Your task to perform on an android device: open app "Messages" Image 0: 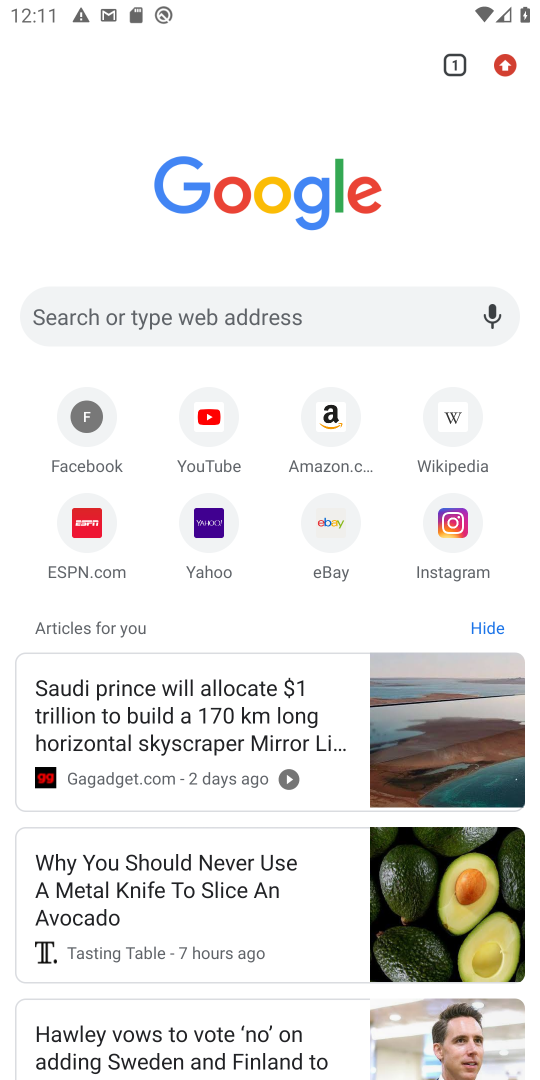
Step 0: press home button
Your task to perform on an android device: open app "Messages" Image 1: 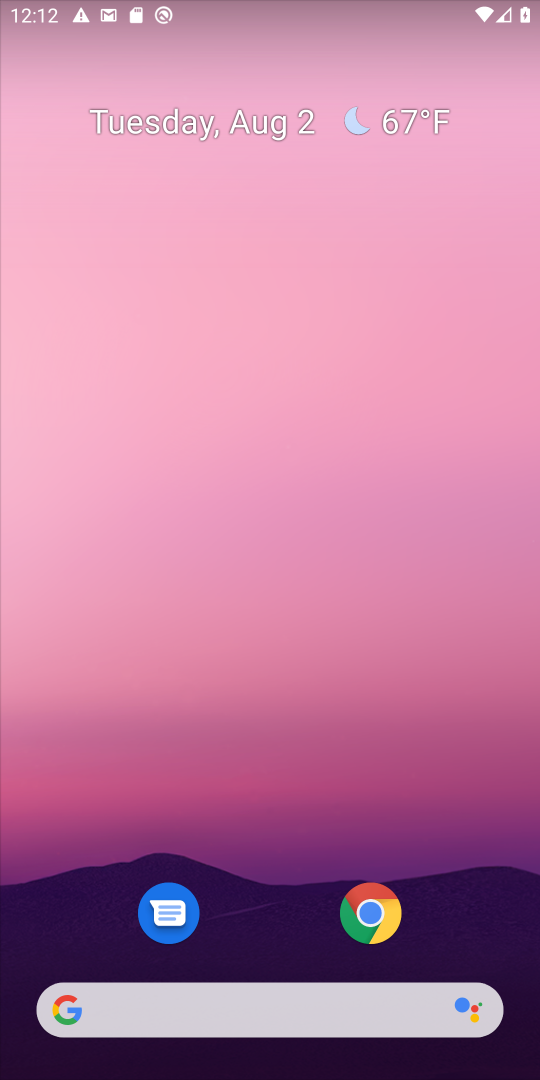
Step 1: drag from (540, 728) to (482, 2)
Your task to perform on an android device: open app "Messages" Image 2: 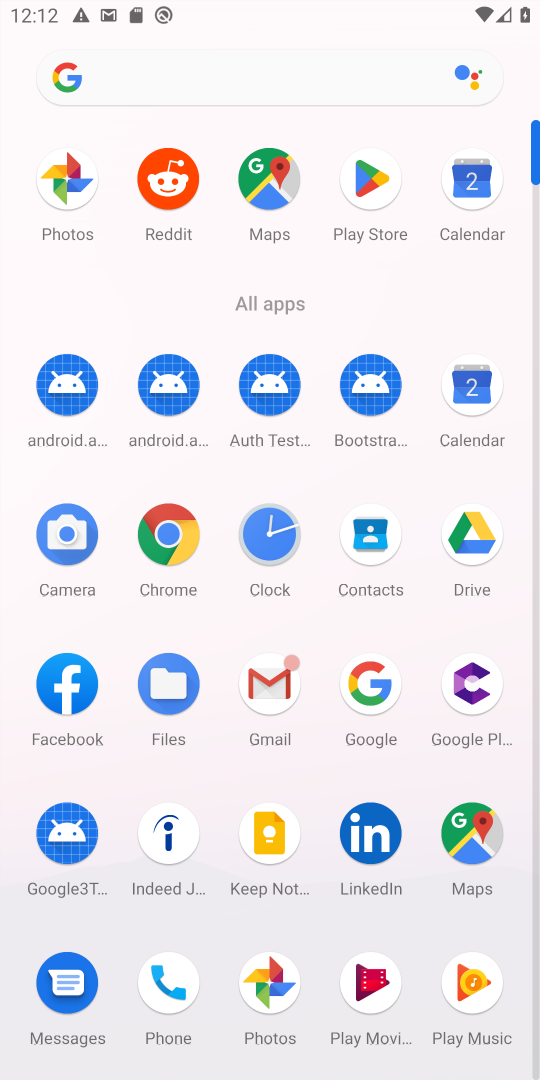
Step 2: drag from (221, 940) to (243, 593)
Your task to perform on an android device: open app "Messages" Image 3: 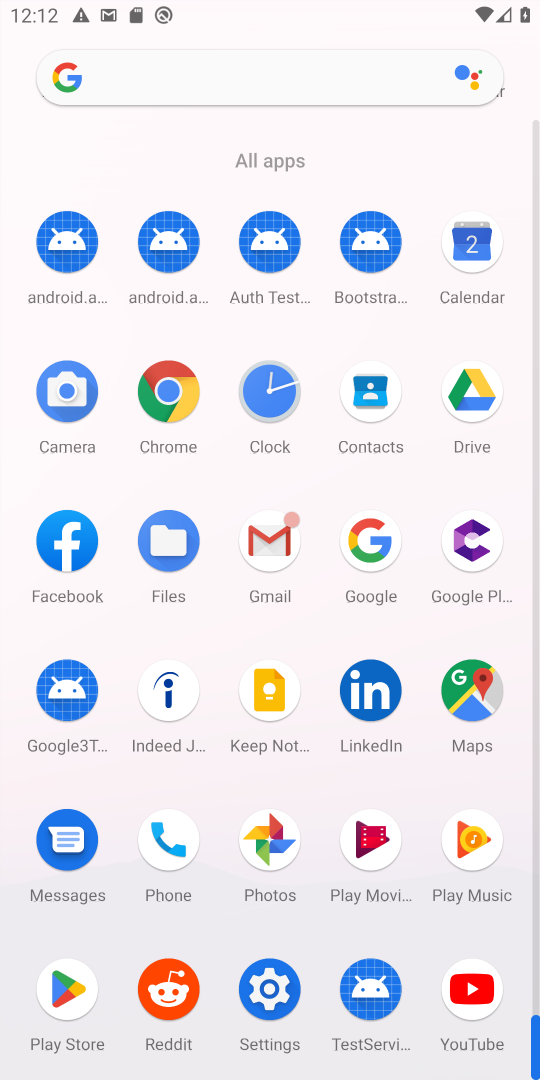
Step 3: click (57, 841)
Your task to perform on an android device: open app "Messages" Image 4: 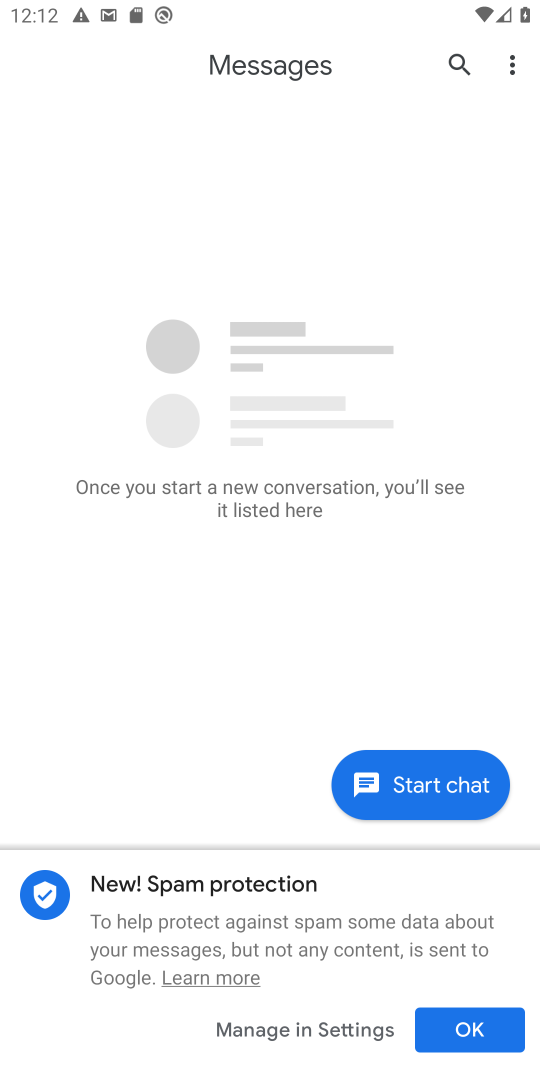
Step 4: click (481, 1037)
Your task to perform on an android device: open app "Messages" Image 5: 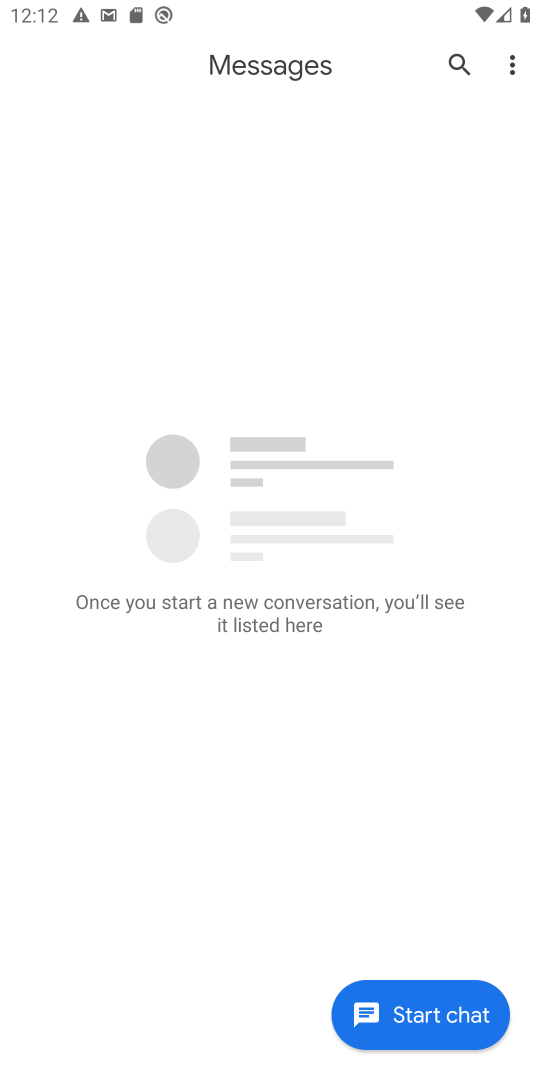
Step 5: task complete